Your task to perform on an android device: open app "Messenger Lite" Image 0: 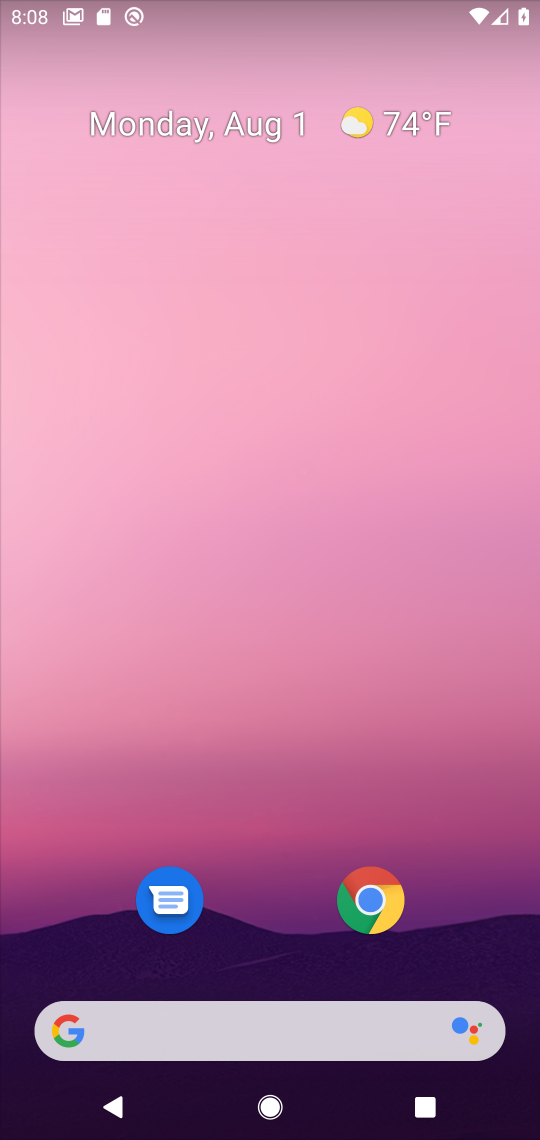
Step 0: drag from (268, 981) to (220, 138)
Your task to perform on an android device: open app "Messenger Lite" Image 1: 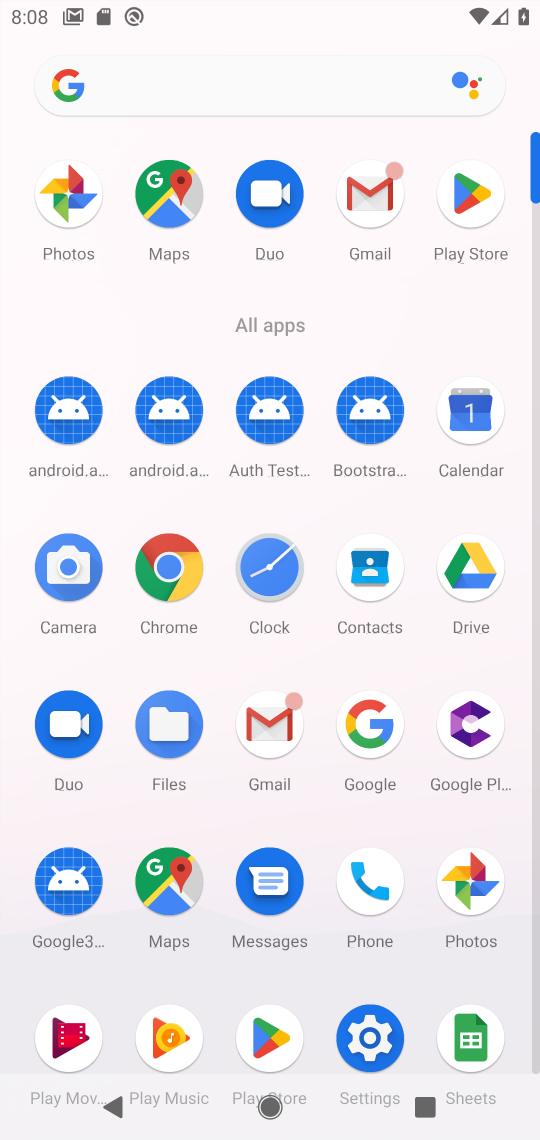
Step 1: click (261, 1030)
Your task to perform on an android device: open app "Messenger Lite" Image 2: 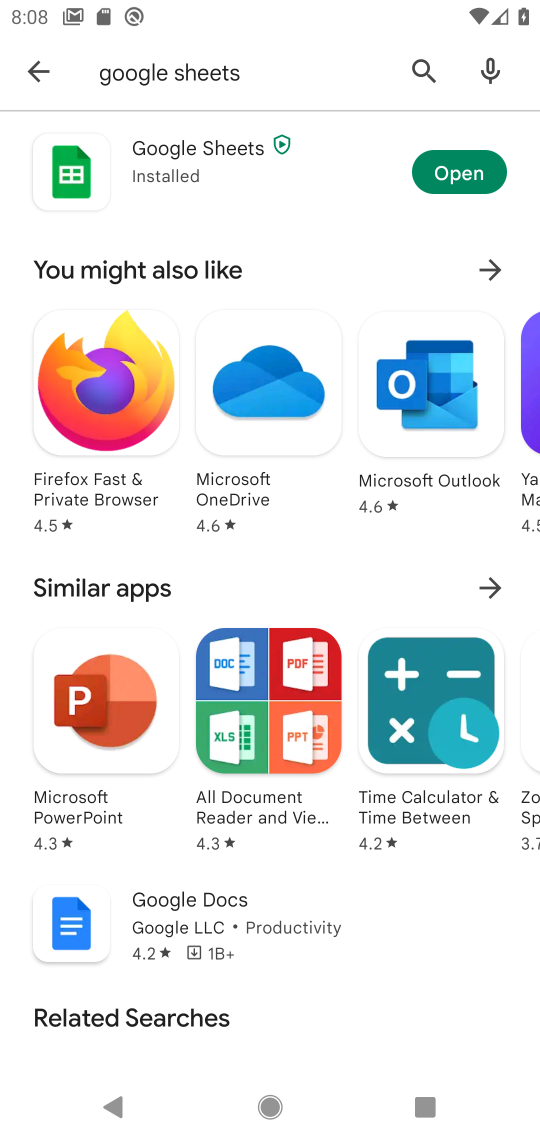
Step 2: click (31, 88)
Your task to perform on an android device: open app "Messenger Lite" Image 3: 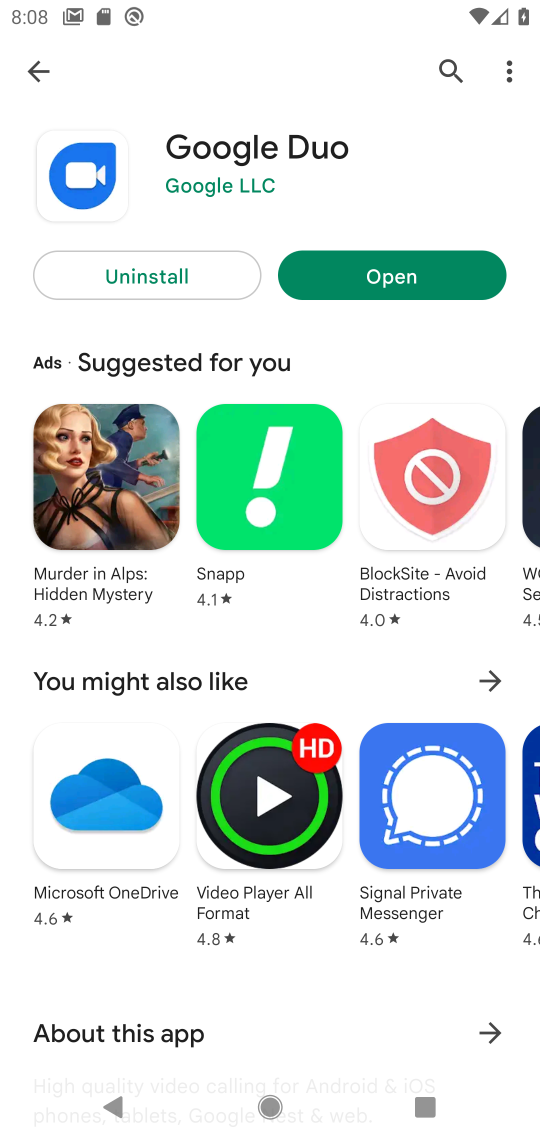
Step 3: click (441, 66)
Your task to perform on an android device: open app "Messenger Lite" Image 4: 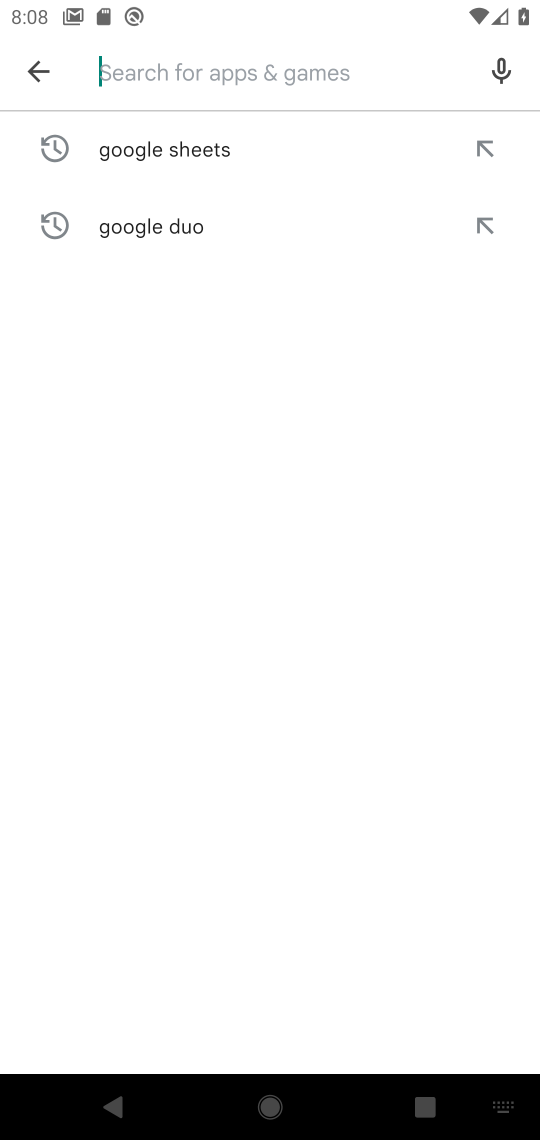
Step 4: type "Messenger Lite"
Your task to perform on an android device: open app "Messenger Lite" Image 5: 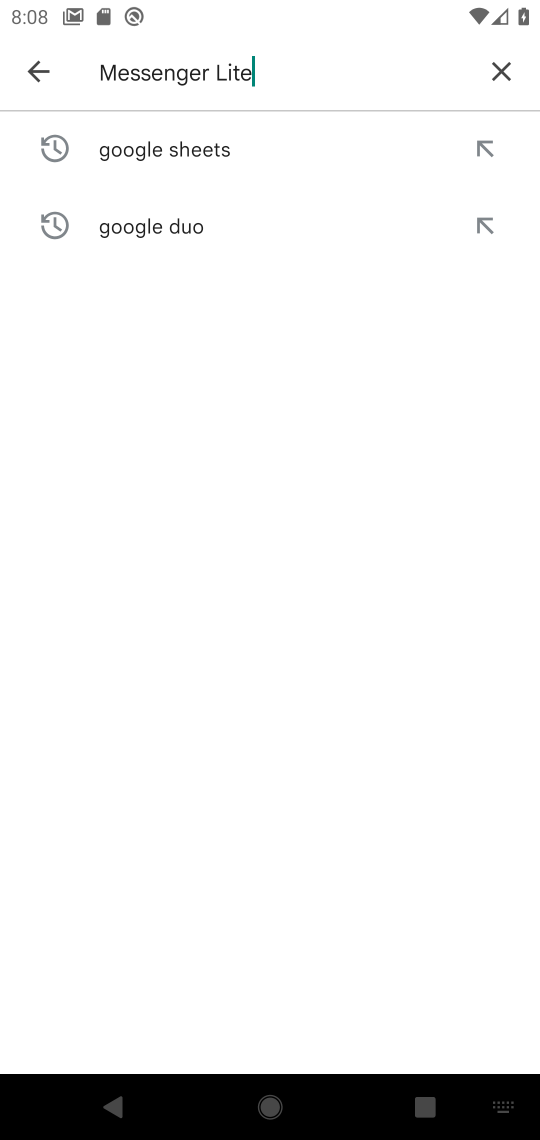
Step 5: type ""
Your task to perform on an android device: open app "Messenger Lite" Image 6: 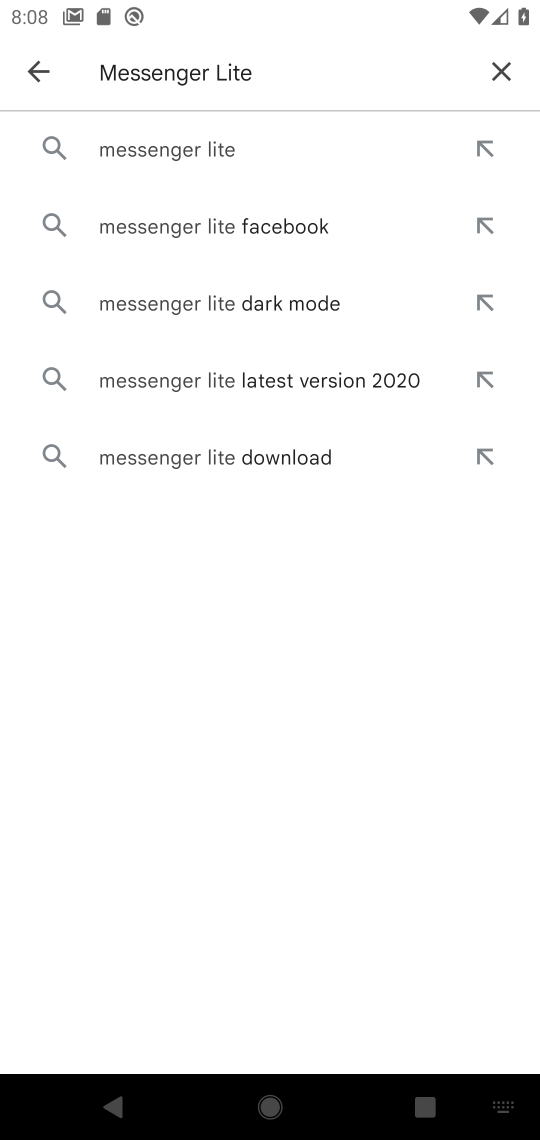
Step 6: click (156, 161)
Your task to perform on an android device: open app "Messenger Lite" Image 7: 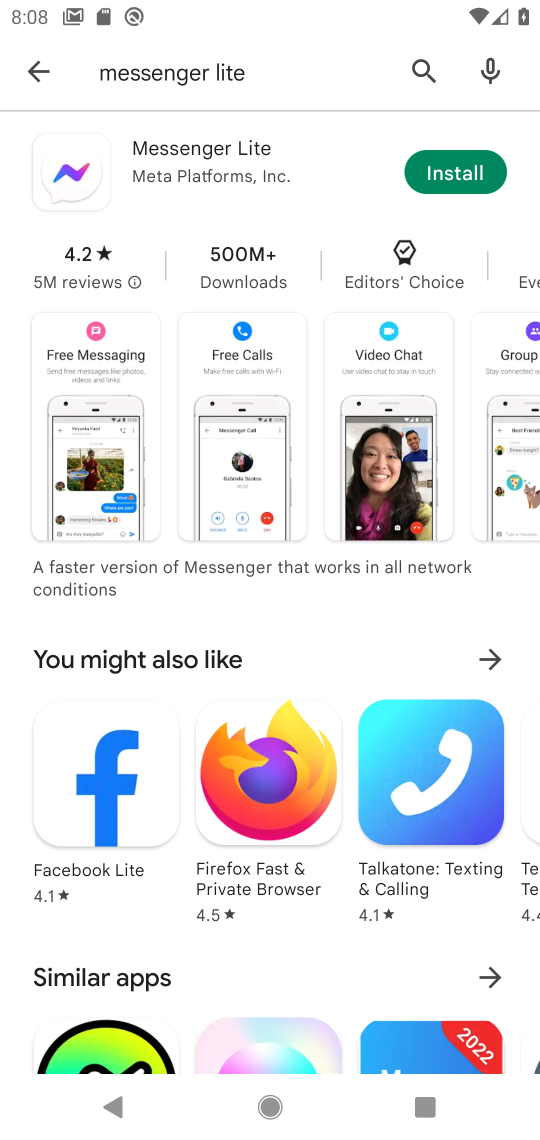
Step 7: click (466, 164)
Your task to perform on an android device: open app "Messenger Lite" Image 8: 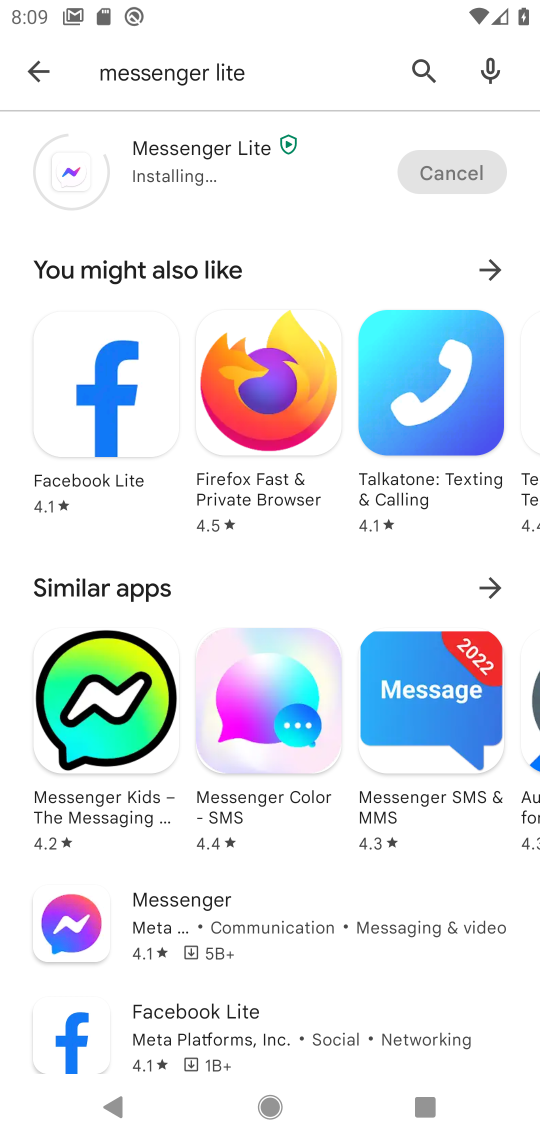
Step 8: task complete